Your task to perform on an android device: Open calendar and show me the fourth week of next month Image 0: 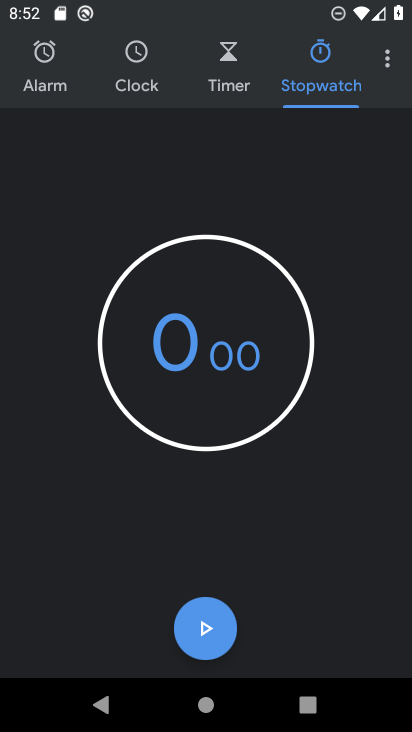
Step 0: press home button
Your task to perform on an android device: Open calendar and show me the fourth week of next month Image 1: 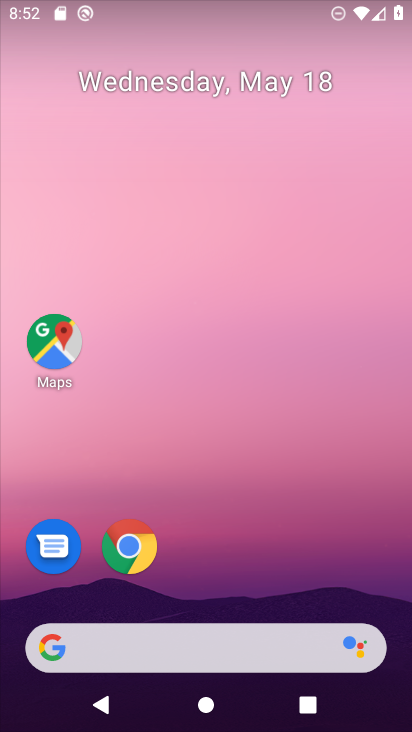
Step 1: drag from (266, 641) to (329, 165)
Your task to perform on an android device: Open calendar and show me the fourth week of next month Image 2: 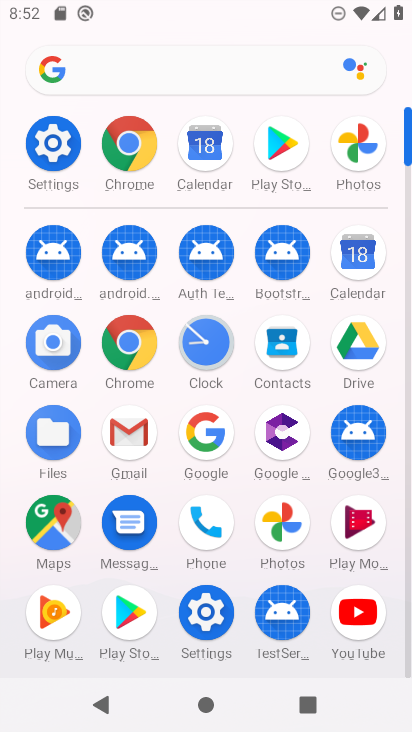
Step 2: click (351, 285)
Your task to perform on an android device: Open calendar and show me the fourth week of next month Image 3: 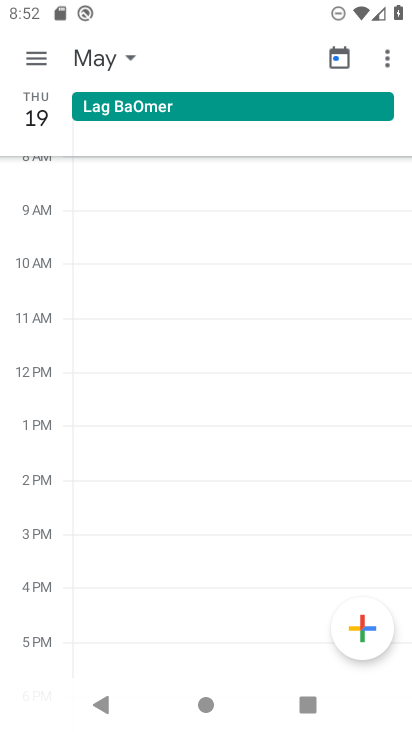
Step 3: click (15, 59)
Your task to perform on an android device: Open calendar and show me the fourth week of next month Image 4: 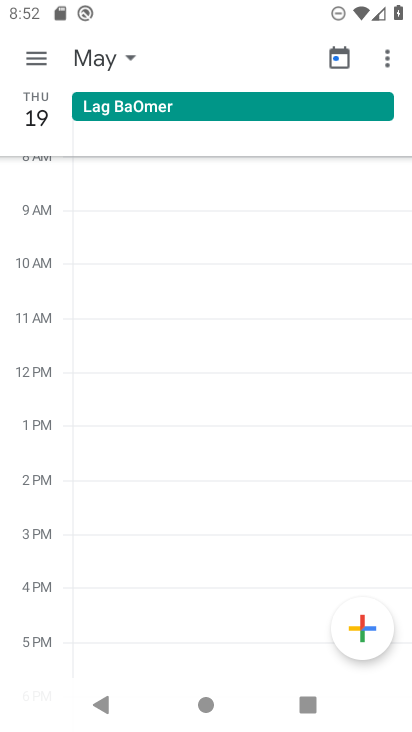
Step 4: click (46, 54)
Your task to perform on an android device: Open calendar and show me the fourth week of next month Image 5: 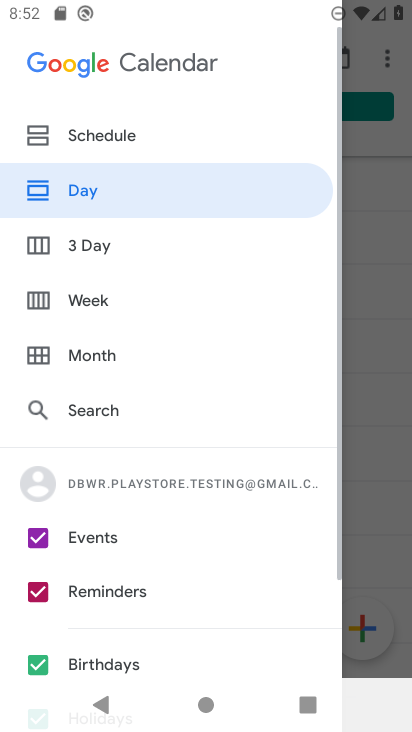
Step 5: click (78, 341)
Your task to perform on an android device: Open calendar and show me the fourth week of next month Image 6: 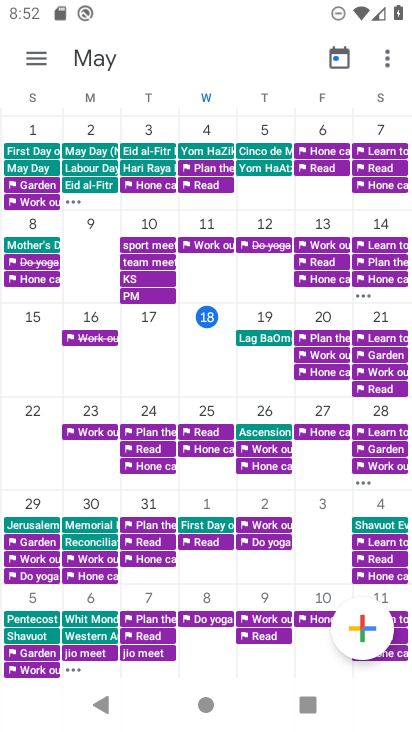
Step 6: drag from (362, 455) to (0, 436)
Your task to perform on an android device: Open calendar and show me the fourth week of next month Image 7: 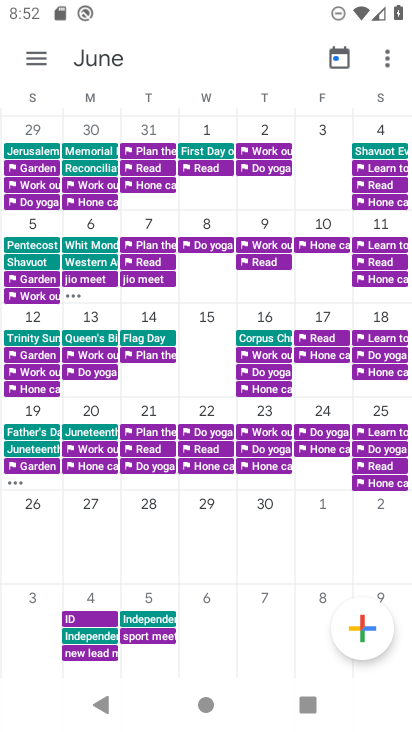
Step 7: click (99, 426)
Your task to perform on an android device: Open calendar and show me the fourth week of next month Image 8: 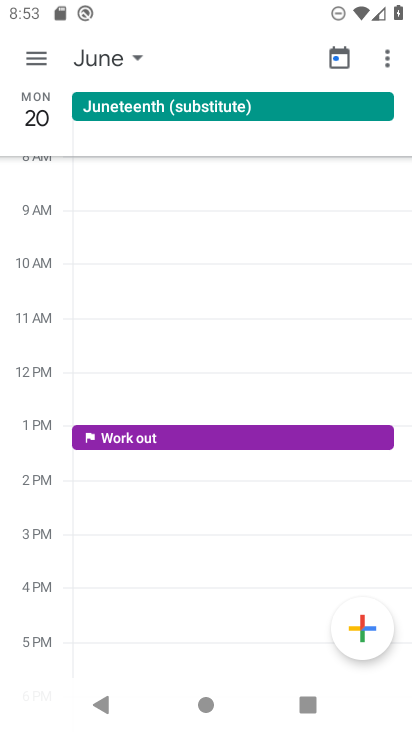
Step 8: task complete